Your task to perform on an android device: delete a single message in the gmail app Image 0: 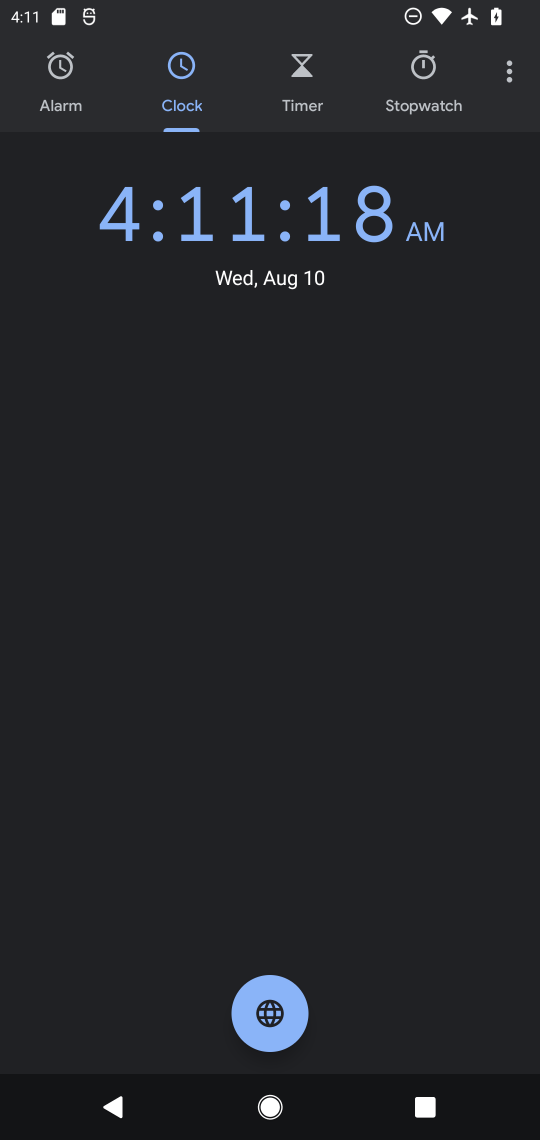
Step 0: press home button
Your task to perform on an android device: delete a single message in the gmail app Image 1: 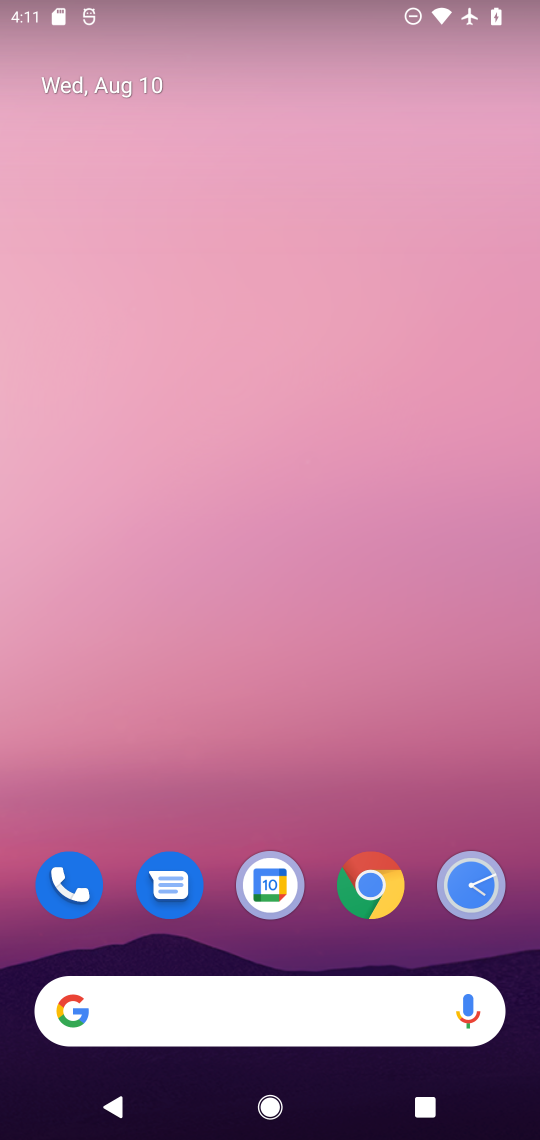
Step 1: drag from (309, 948) to (203, 202)
Your task to perform on an android device: delete a single message in the gmail app Image 2: 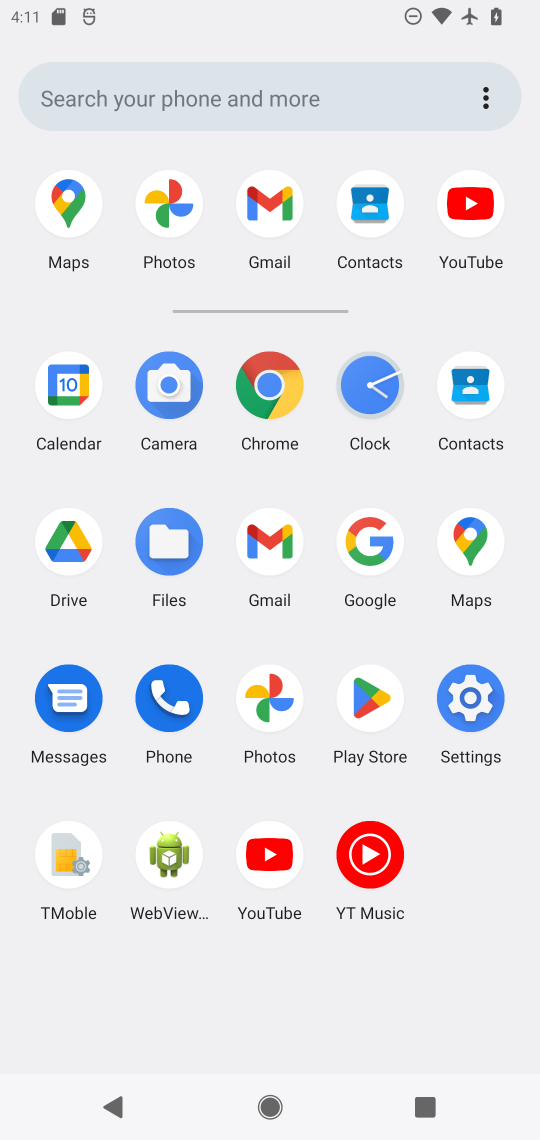
Step 2: click (269, 200)
Your task to perform on an android device: delete a single message in the gmail app Image 3: 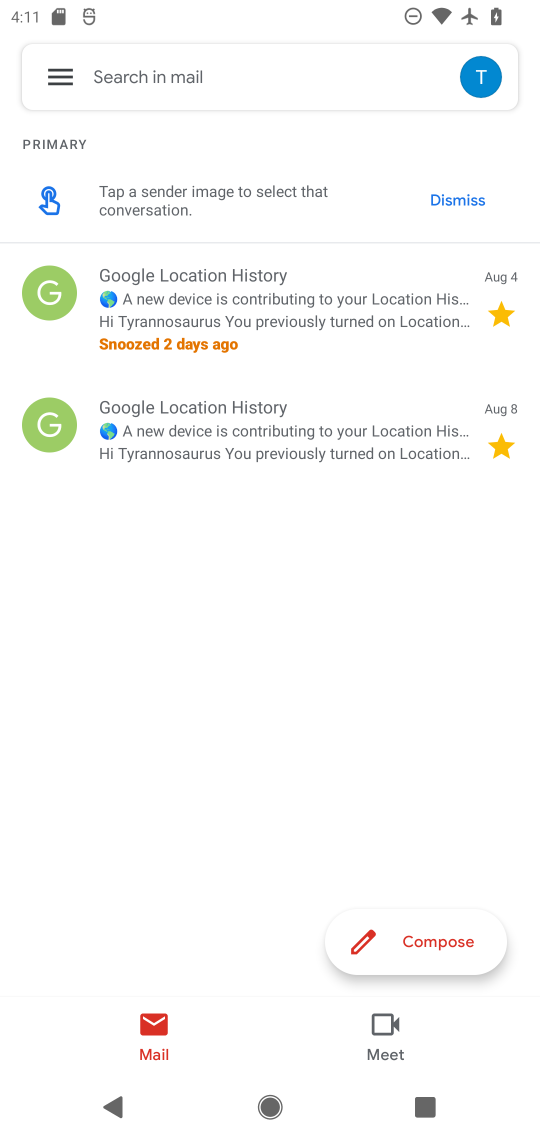
Step 3: click (238, 294)
Your task to perform on an android device: delete a single message in the gmail app Image 4: 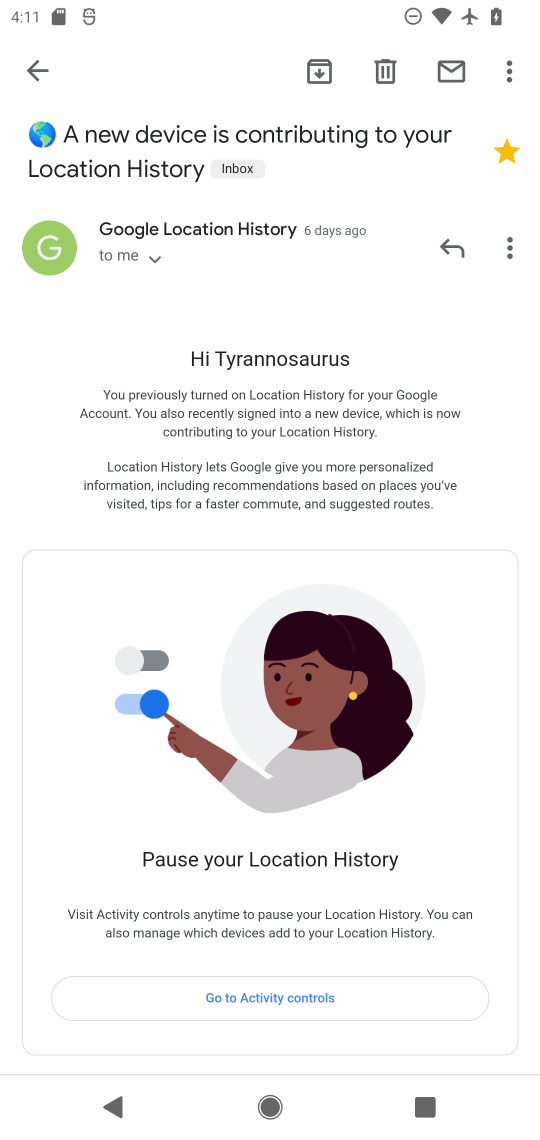
Step 4: click (387, 69)
Your task to perform on an android device: delete a single message in the gmail app Image 5: 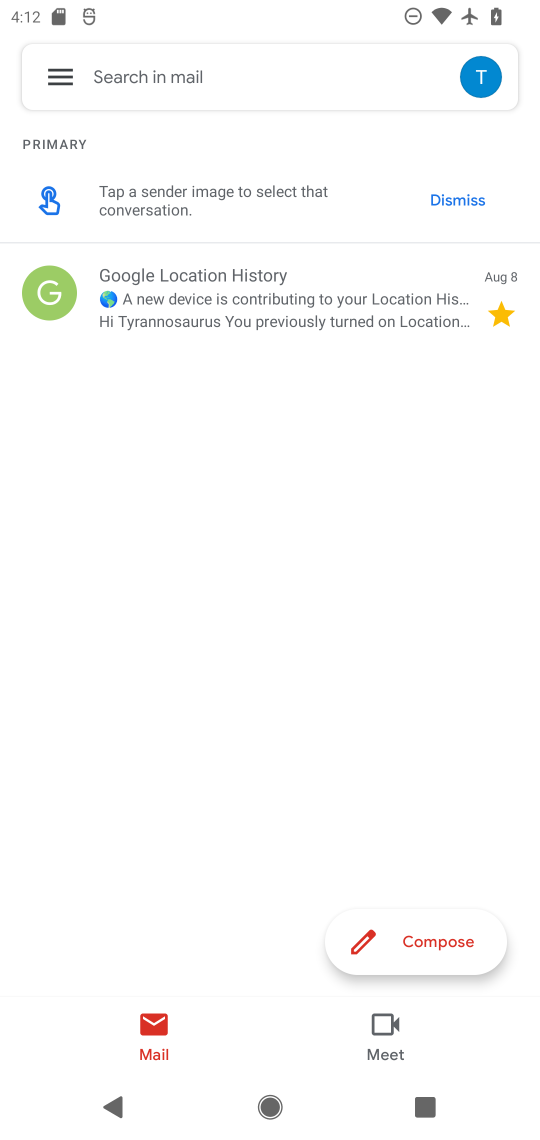
Step 5: task complete